Your task to perform on an android device: clear history in the chrome app Image 0: 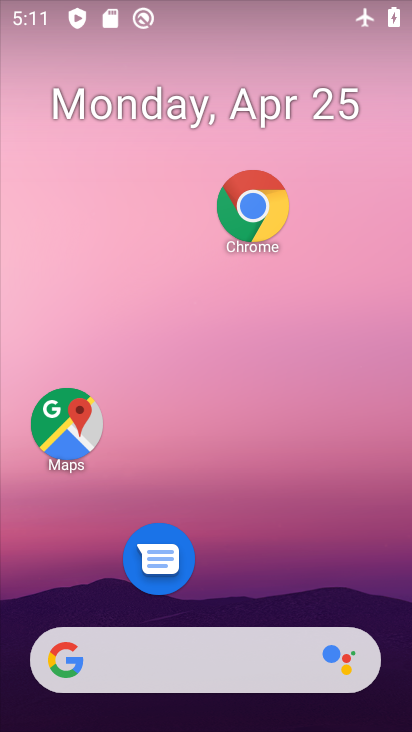
Step 0: click (259, 235)
Your task to perform on an android device: clear history in the chrome app Image 1: 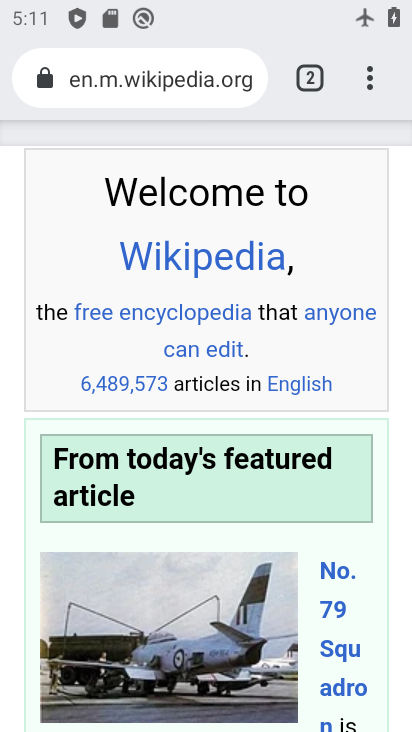
Step 1: click (365, 79)
Your task to perform on an android device: clear history in the chrome app Image 2: 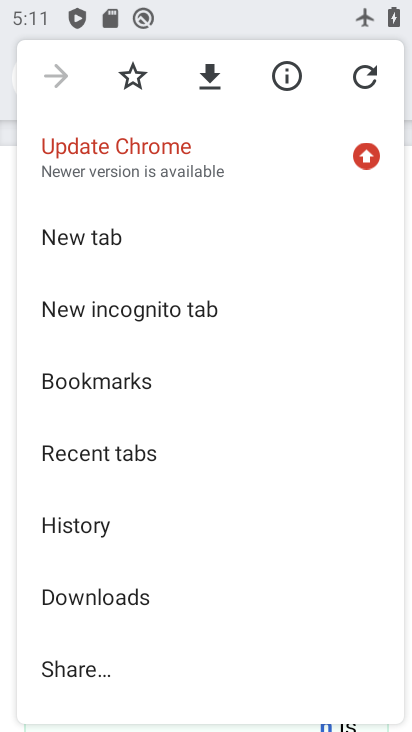
Step 2: click (70, 513)
Your task to perform on an android device: clear history in the chrome app Image 3: 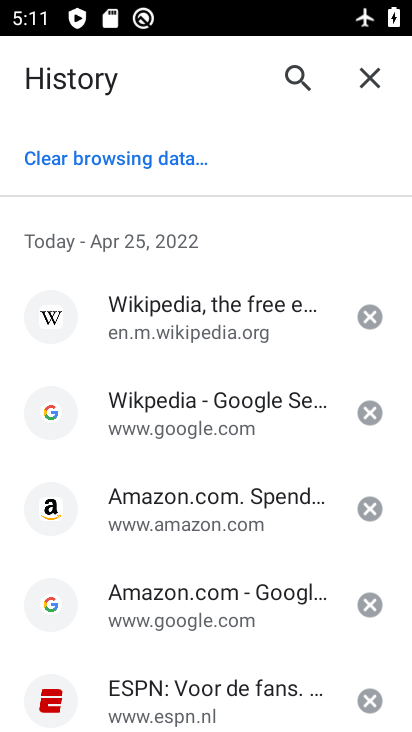
Step 3: click (110, 157)
Your task to perform on an android device: clear history in the chrome app Image 4: 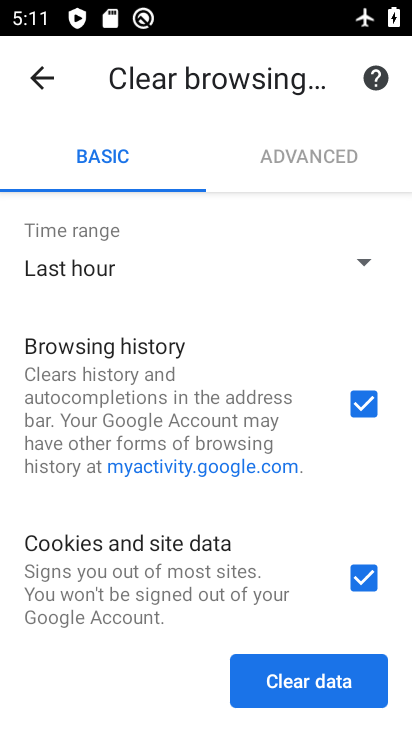
Step 4: click (296, 682)
Your task to perform on an android device: clear history in the chrome app Image 5: 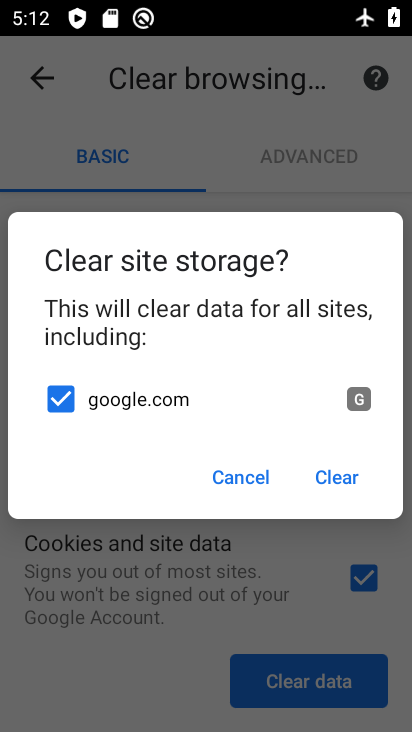
Step 5: click (321, 478)
Your task to perform on an android device: clear history in the chrome app Image 6: 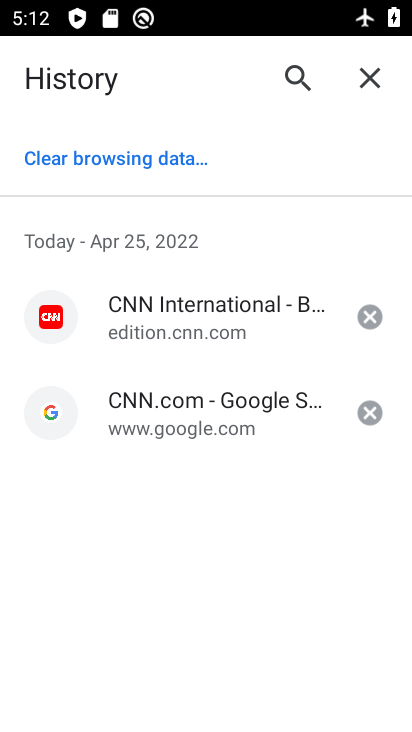
Step 6: task complete